Your task to perform on an android device: Search for Mexican restaurants on Maps Image 0: 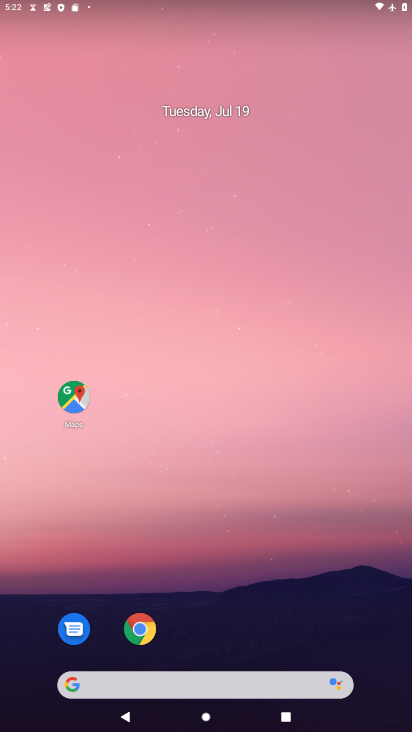
Step 0: press home button
Your task to perform on an android device: Search for Mexican restaurants on Maps Image 1: 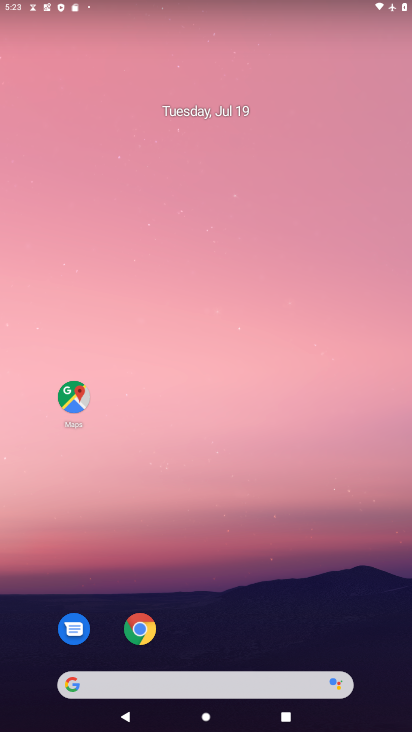
Step 1: drag from (234, 597) to (288, 8)
Your task to perform on an android device: Search for Mexican restaurants on Maps Image 2: 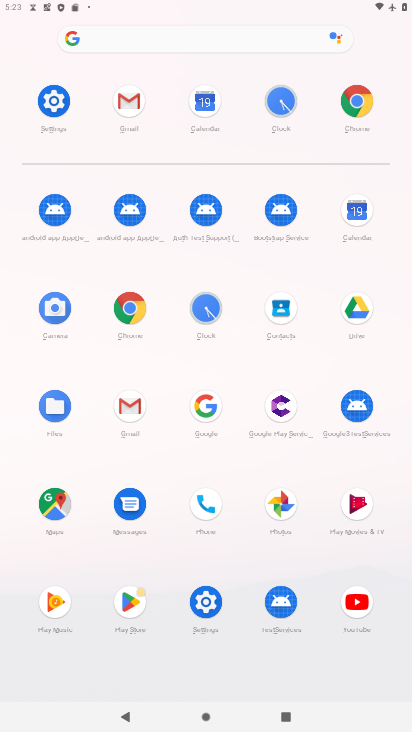
Step 2: click (57, 506)
Your task to perform on an android device: Search for Mexican restaurants on Maps Image 3: 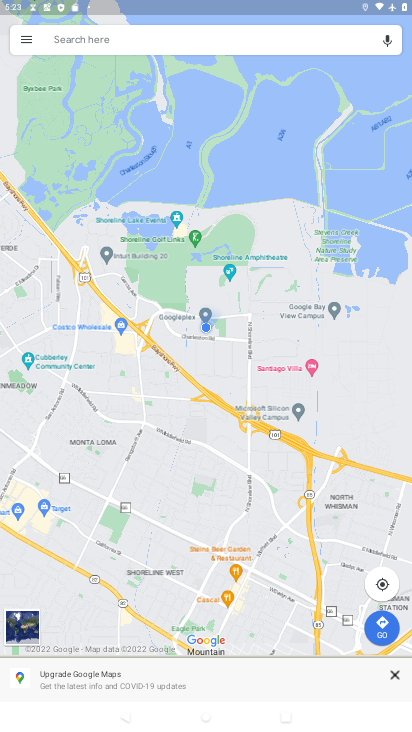
Step 3: click (116, 42)
Your task to perform on an android device: Search for Mexican restaurants on Maps Image 4: 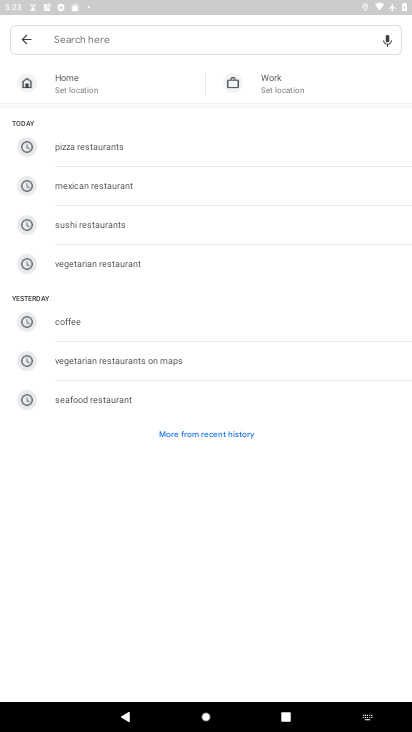
Step 4: click (87, 189)
Your task to perform on an android device: Search for Mexican restaurants on Maps Image 5: 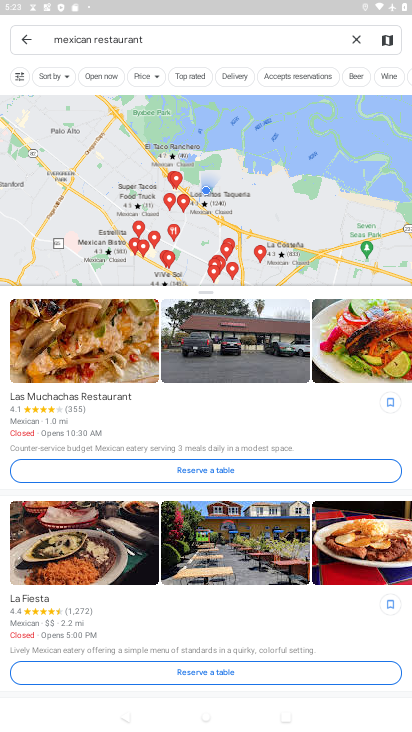
Step 5: click (391, 113)
Your task to perform on an android device: Search for Mexican restaurants on Maps Image 6: 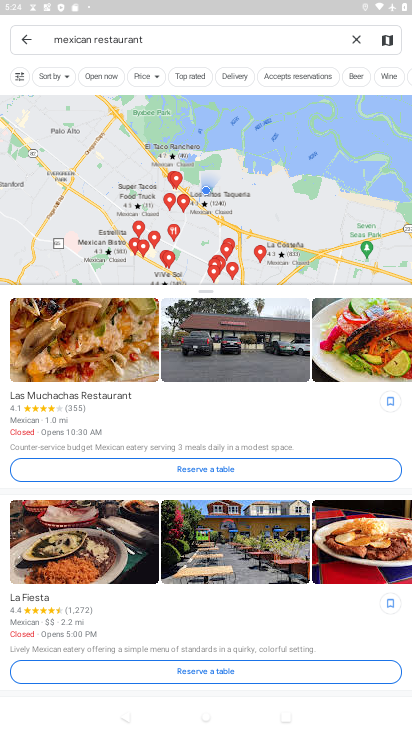
Step 6: task complete